Your task to perform on an android device: Open the phone app and click the voicemail tab. Image 0: 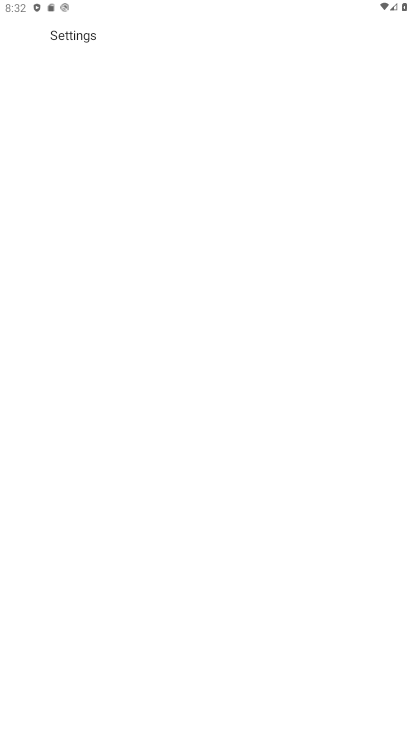
Step 0: drag from (215, 565) to (187, 62)
Your task to perform on an android device: Open the phone app and click the voicemail tab. Image 1: 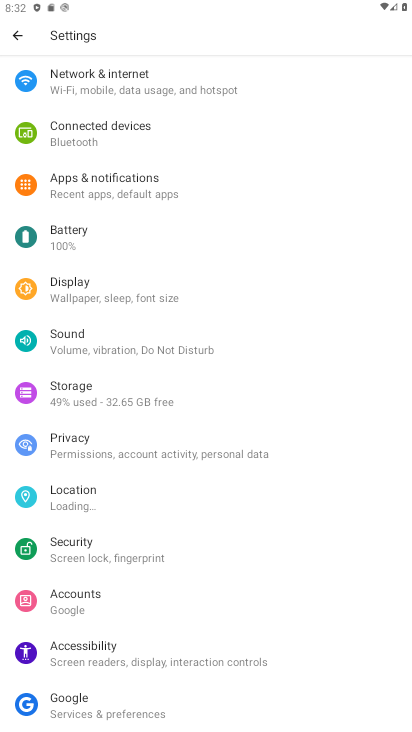
Step 1: press home button
Your task to perform on an android device: Open the phone app and click the voicemail tab. Image 2: 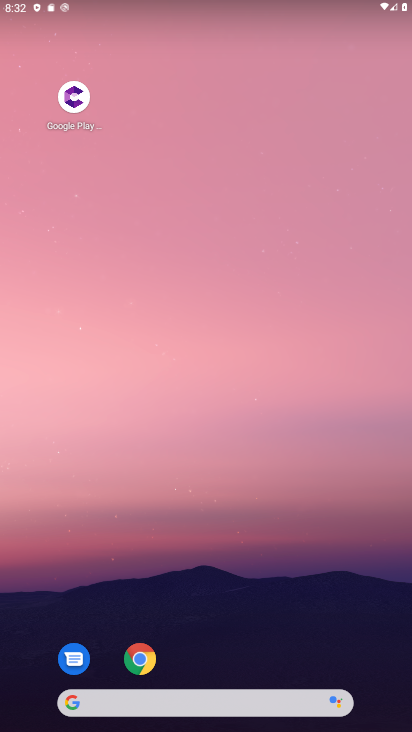
Step 2: drag from (238, 555) to (226, 82)
Your task to perform on an android device: Open the phone app and click the voicemail tab. Image 3: 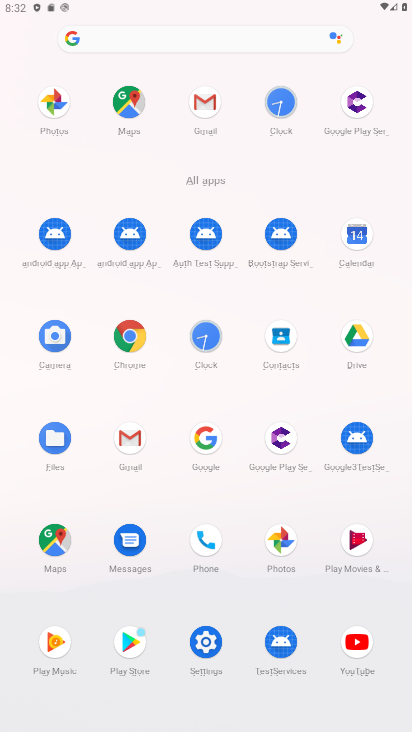
Step 3: click (204, 543)
Your task to perform on an android device: Open the phone app and click the voicemail tab. Image 4: 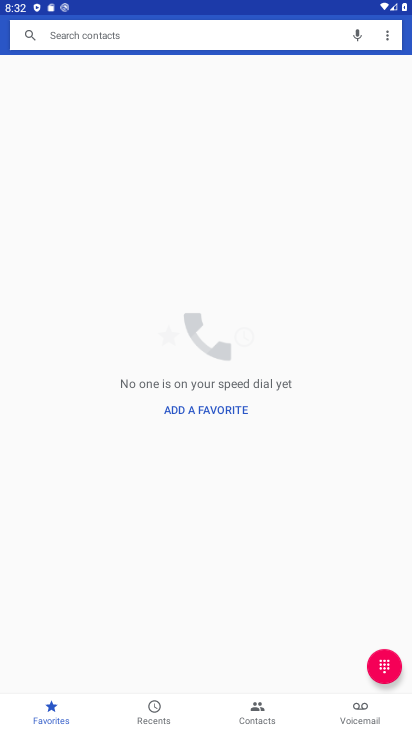
Step 4: click (351, 711)
Your task to perform on an android device: Open the phone app and click the voicemail tab. Image 5: 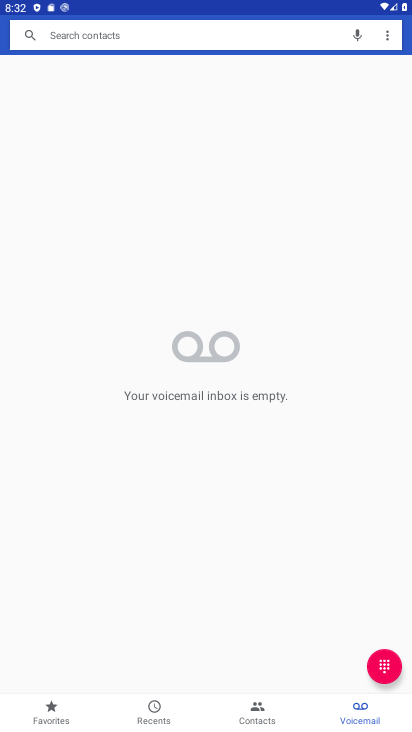
Step 5: task complete